Your task to perform on an android device: Do I have any events this weekend? Image 0: 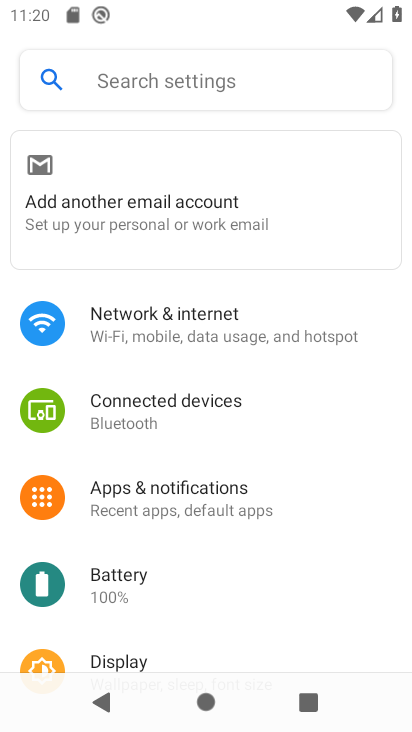
Step 0: press home button
Your task to perform on an android device: Do I have any events this weekend? Image 1: 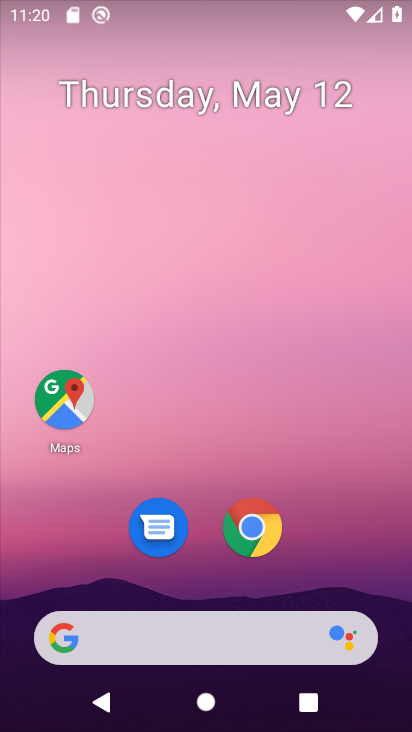
Step 1: drag from (290, 560) to (290, 78)
Your task to perform on an android device: Do I have any events this weekend? Image 2: 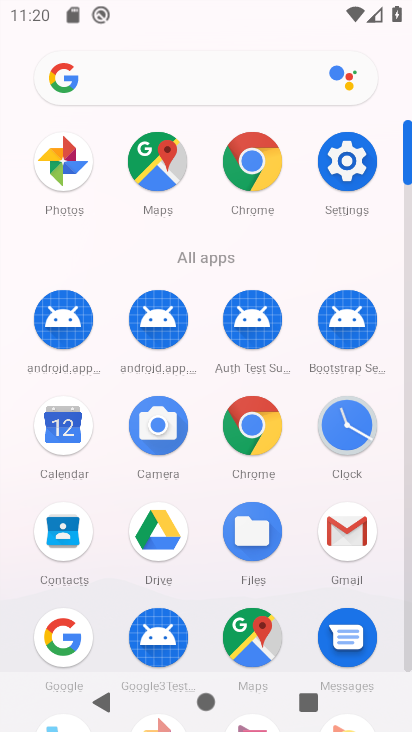
Step 2: click (58, 434)
Your task to perform on an android device: Do I have any events this weekend? Image 3: 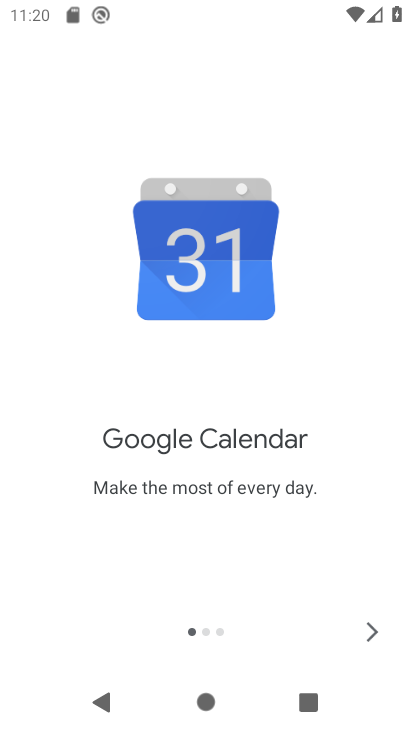
Step 3: click (375, 632)
Your task to perform on an android device: Do I have any events this weekend? Image 4: 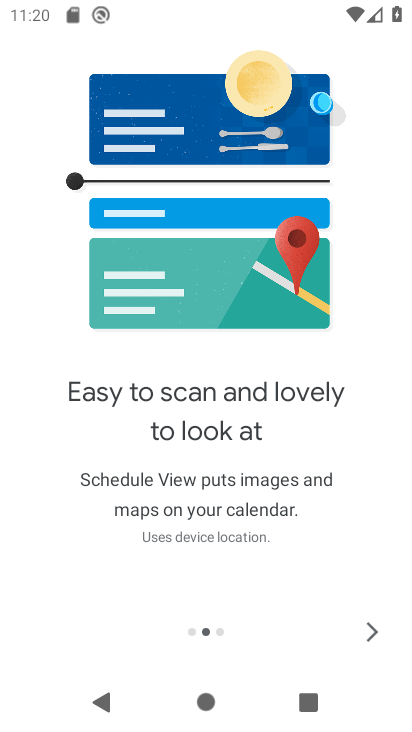
Step 4: click (379, 631)
Your task to perform on an android device: Do I have any events this weekend? Image 5: 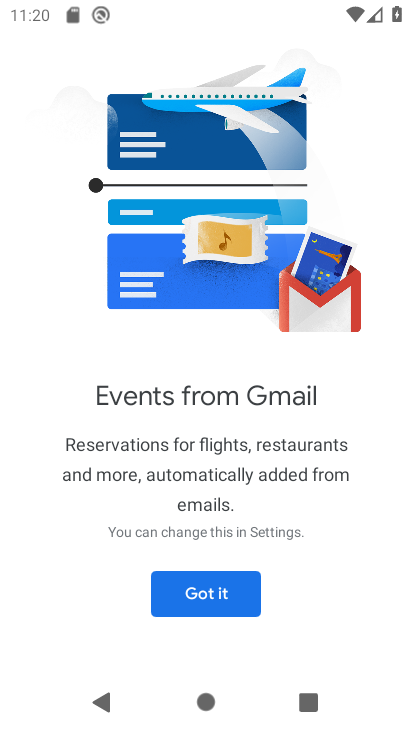
Step 5: click (234, 595)
Your task to perform on an android device: Do I have any events this weekend? Image 6: 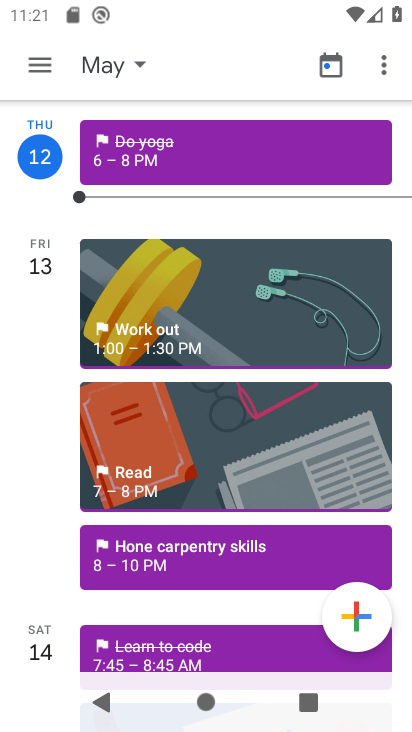
Step 6: click (117, 66)
Your task to perform on an android device: Do I have any events this weekend? Image 7: 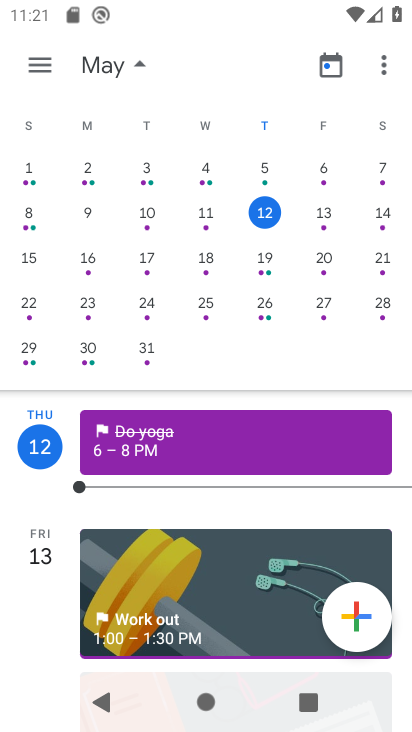
Step 7: click (32, 230)
Your task to perform on an android device: Do I have any events this weekend? Image 8: 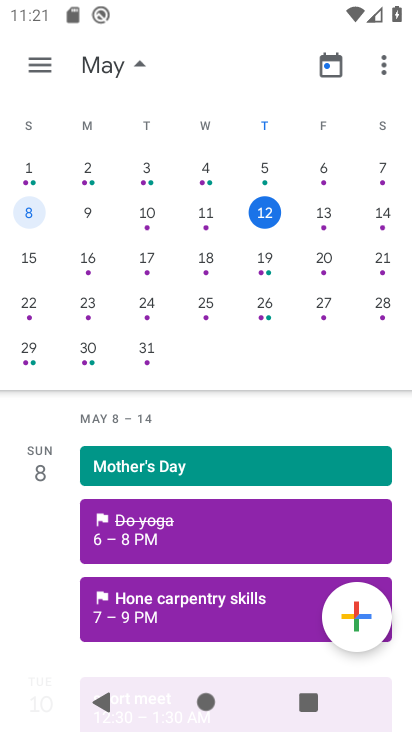
Step 8: task complete